Your task to perform on an android device: turn vacation reply on in the gmail app Image 0: 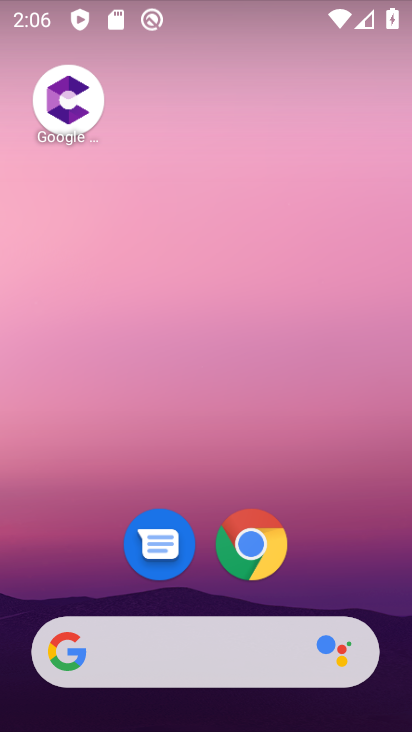
Step 0: drag from (210, 605) to (191, 75)
Your task to perform on an android device: turn vacation reply on in the gmail app Image 1: 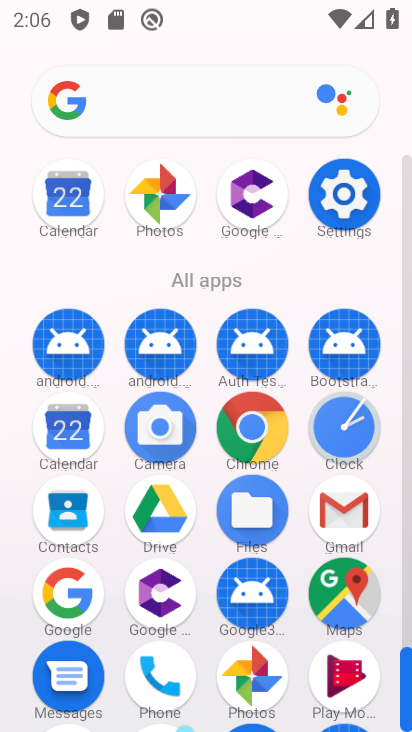
Step 1: click (342, 513)
Your task to perform on an android device: turn vacation reply on in the gmail app Image 2: 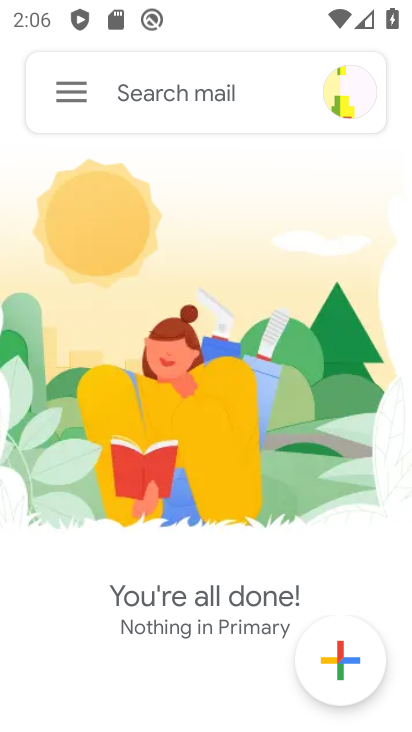
Step 2: click (59, 93)
Your task to perform on an android device: turn vacation reply on in the gmail app Image 3: 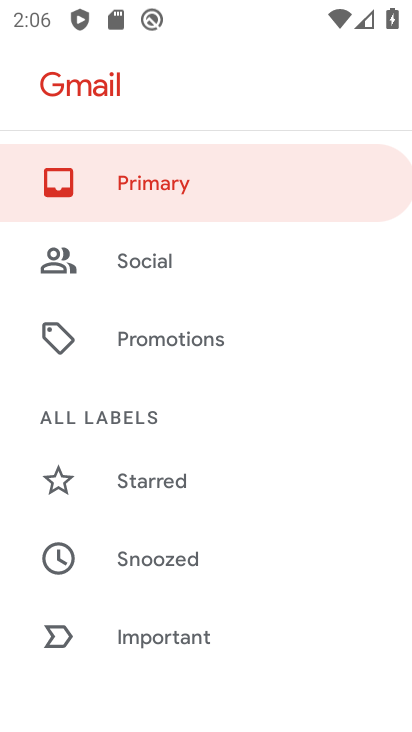
Step 3: drag from (195, 555) to (191, 57)
Your task to perform on an android device: turn vacation reply on in the gmail app Image 4: 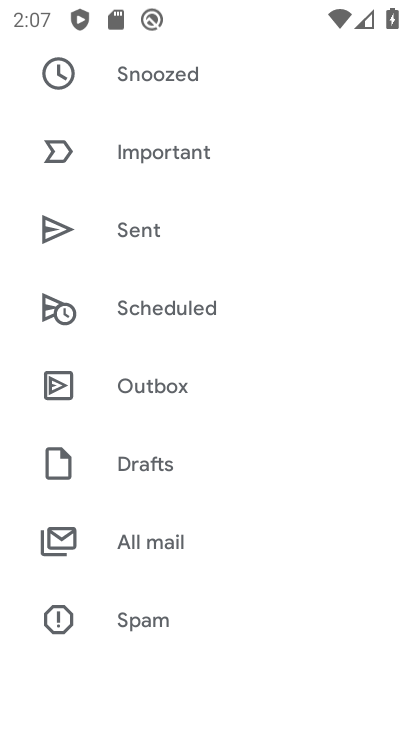
Step 4: drag from (110, 548) to (182, 63)
Your task to perform on an android device: turn vacation reply on in the gmail app Image 5: 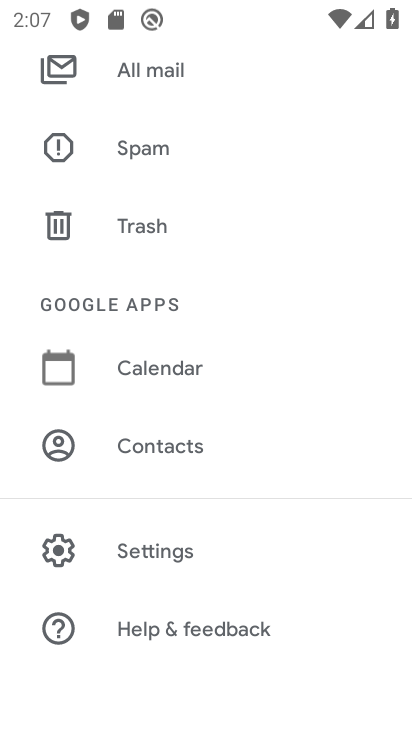
Step 5: click (139, 571)
Your task to perform on an android device: turn vacation reply on in the gmail app Image 6: 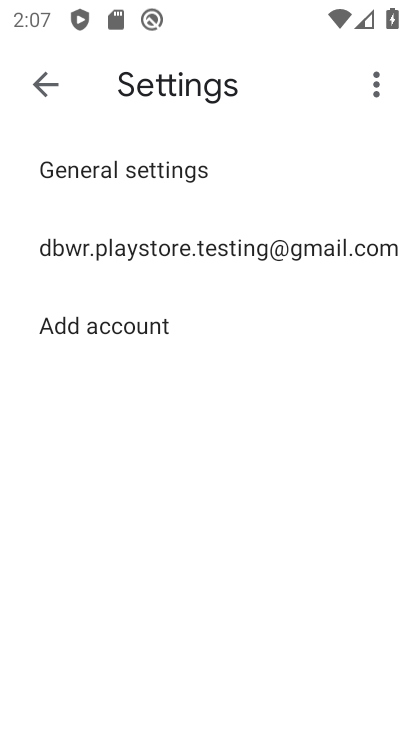
Step 6: click (166, 246)
Your task to perform on an android device: turn vacation reply on in the gmail app Image 7: 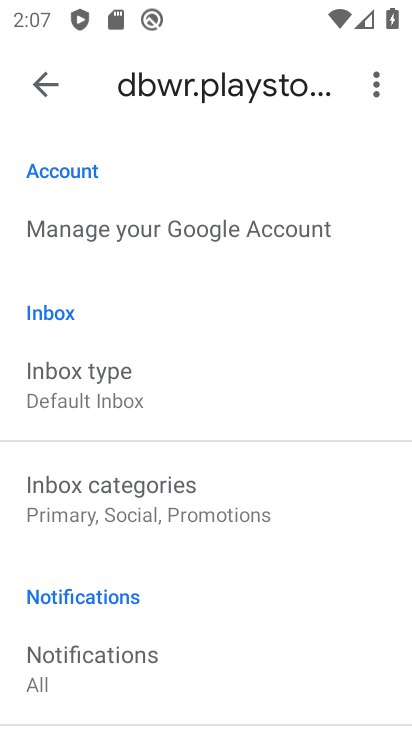
Step 7: drag from (64, 675) to (104, 343)
Your task to perform on an android device: turn vacation reply on in the gmail app Image 8: 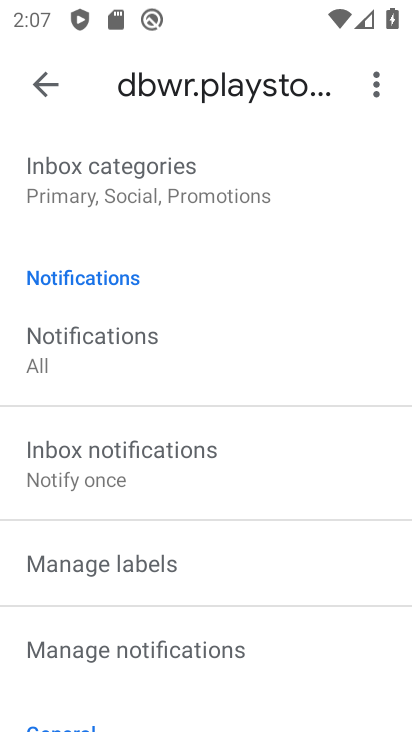
Step 8: drag from (151, 692) to (153, 166)
Your task to perform on an android device: turn vacation reply on in the gmail app Image 9: 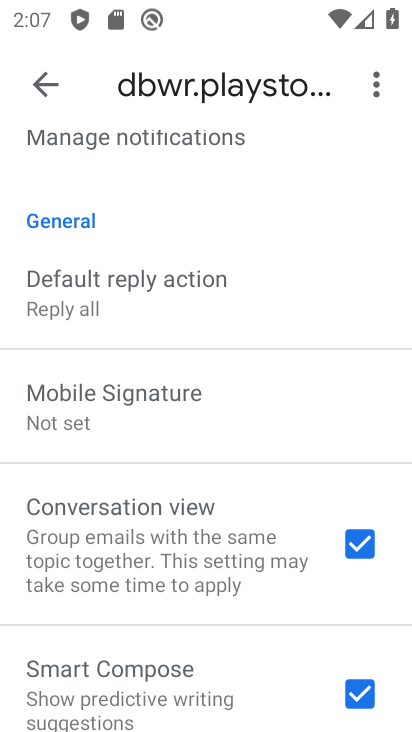
Step 9: drag from (178, 668) to (199, 241)
Your task to perform on an android device: turn vacation reply on in the gmail app Image 10: 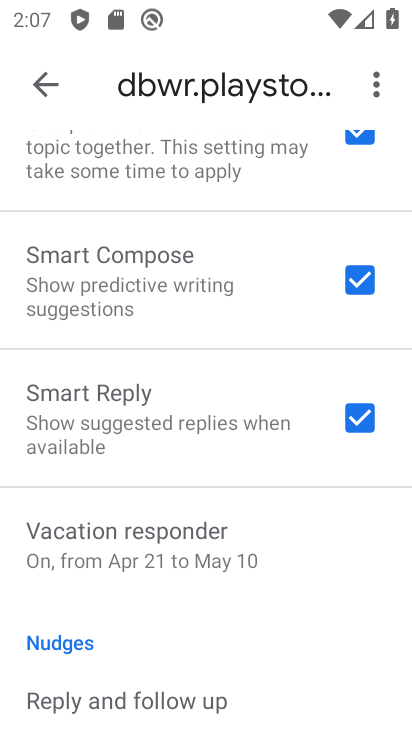
Step 10: drag from (123, 688) to (120, 386)
Your task to perform on an android device: turn vacation reply on in the gmail app Image 11: 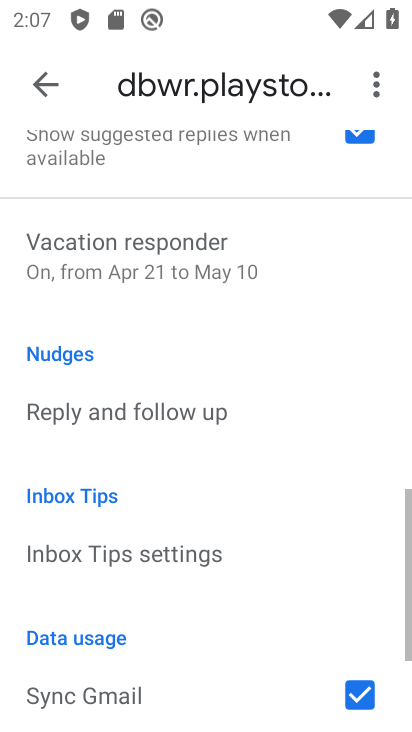
Step 11: click (206, 277)
Your task to perform on an android device: turn vacation reply on in the gmail app Image 12: 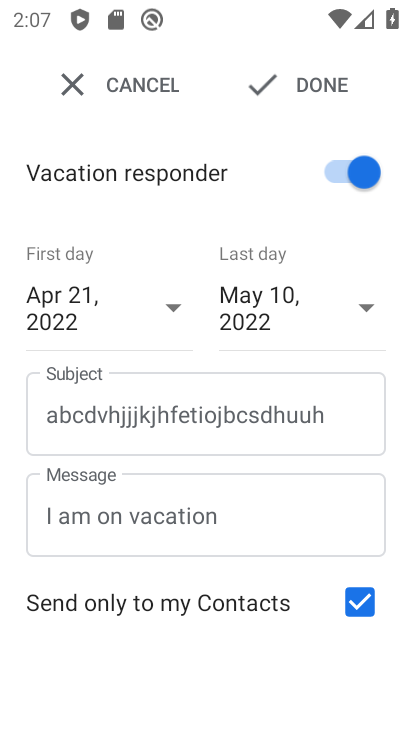
Step 12: click (332, 68)
Your task to perform on an android device: turn vacation reply on in the gmail app Image 13: 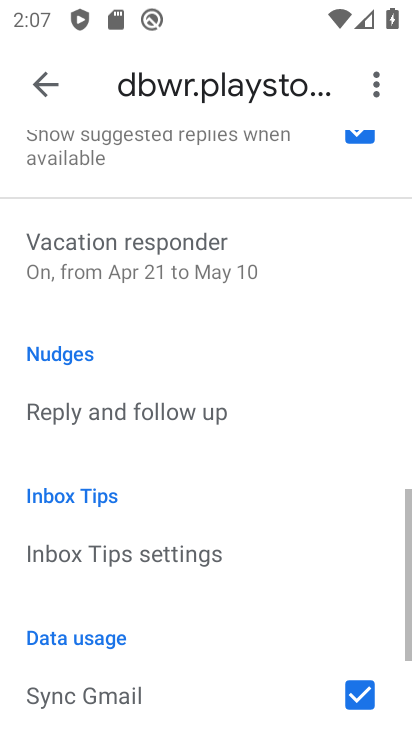
Step 13: task complete